Your task to perform on an android device: turn on showing notifications on the lock screen Image 0: 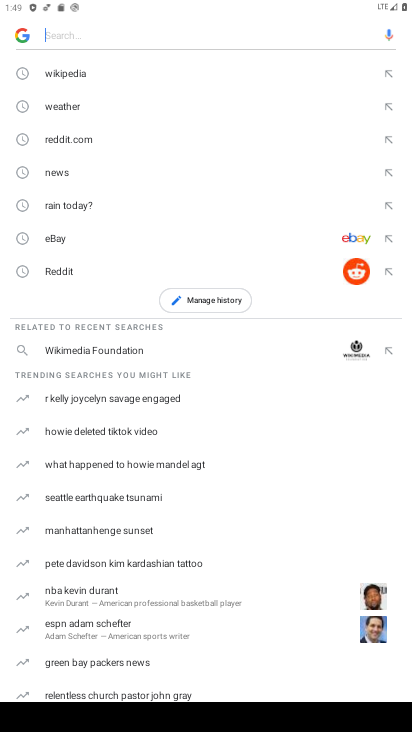
Step 0: press home button
Your task to perform on an android device: turn on showing notifications on the lock screen Image 1: 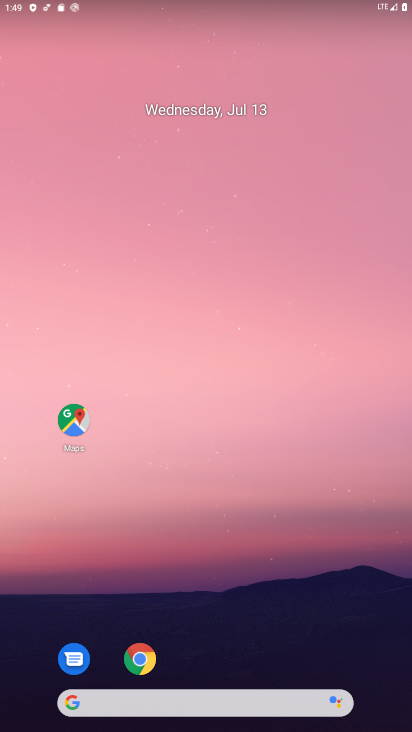
Step 1: drag from (374, 668) to (313, 206)
Your task to perform on an android device: turn on showing notifications on the lock screen Image 2: 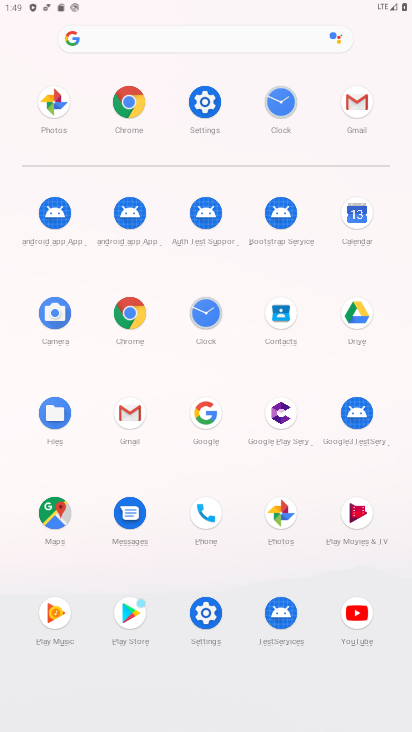
Step 2: click (204, 614)
Your task to perform on an android device: turn on showing notifications on the lock screen Image 3: 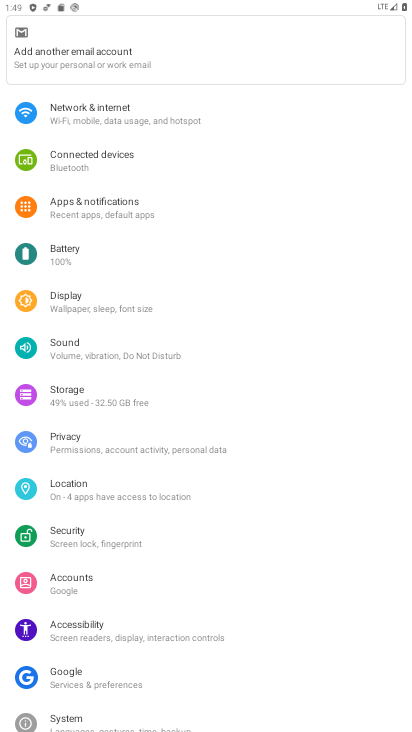
Step 3: click (81, 211)
Your task to perform on an android device: turn on showing notifications on the lock screen Image 4: 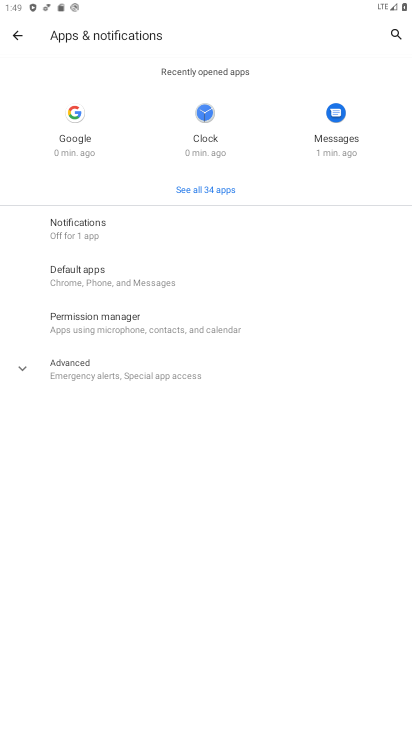
Step 4: click (83, 222)
Your task to perform on an android device: turn on showing notifications on the lock screen Image 5: 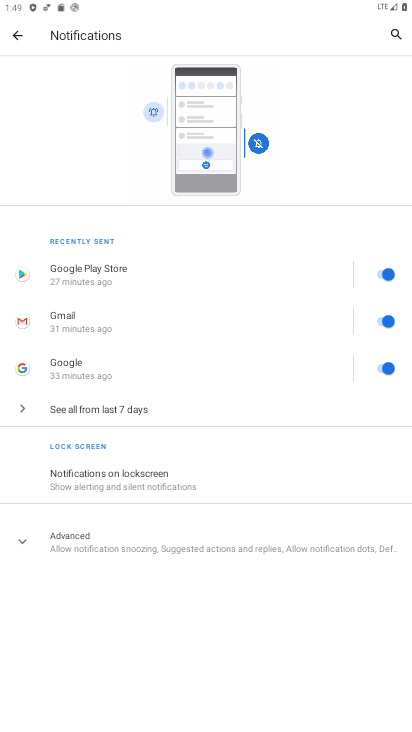
Step 5: click (104, 481)
Your task to perform on an android device: turn on showing notifications on the lock screen Image 6: 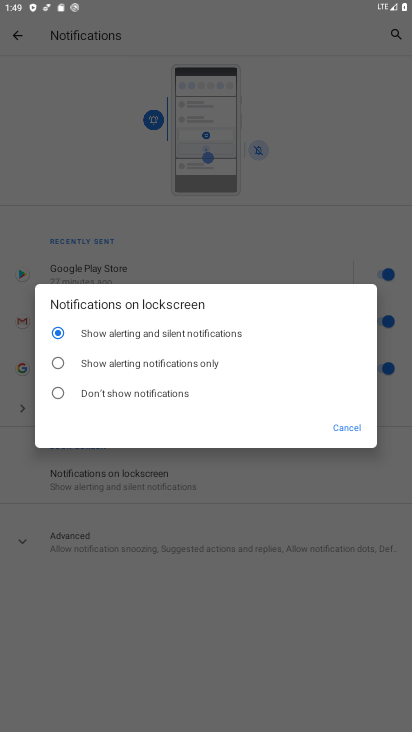
Step 6: task complete